Your task to perform on an android device: What's on my calendar today? Image 0: 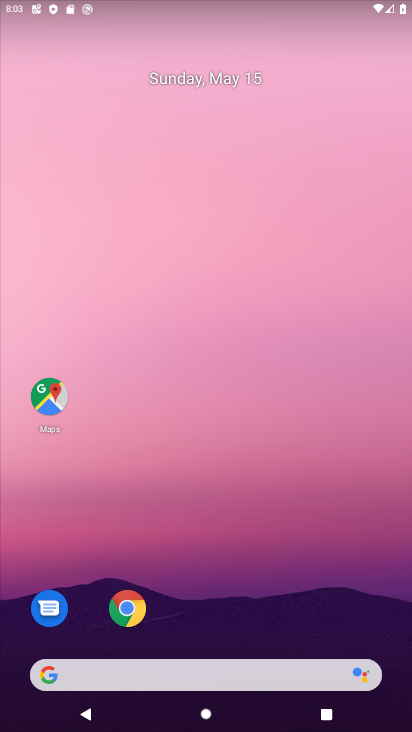
Step 0: drag from (307, 639) to (160, 188)
Your task to perform on an android device: What's on my calendar today? Image 1: 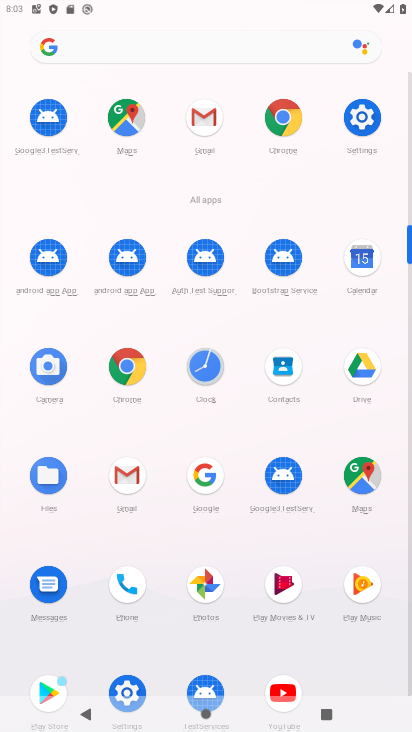
Step 1: click (376, 252)
Your task to perform on an android device: What's on my calendar today? Image 2: 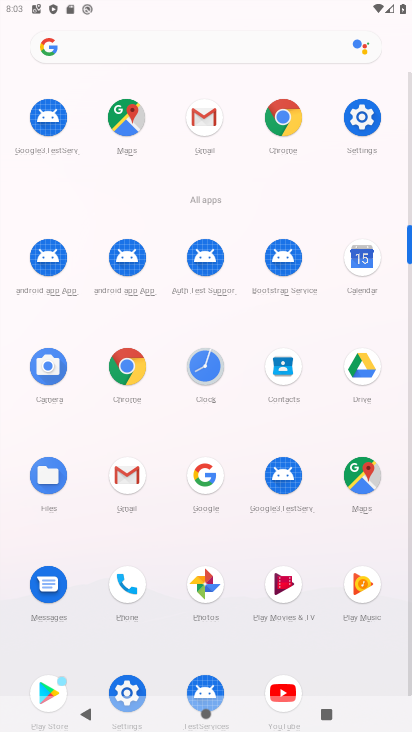
Step 2: click (377, 242)
Your task to perform on an android device: What's on my calendar today? Image 3: 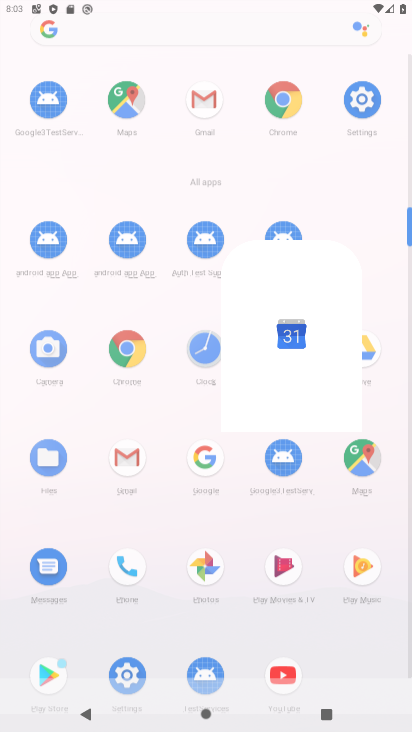
Step 3: click (362, 250)
Your task to perform on an android device: What's on my calendar today? Image 4: 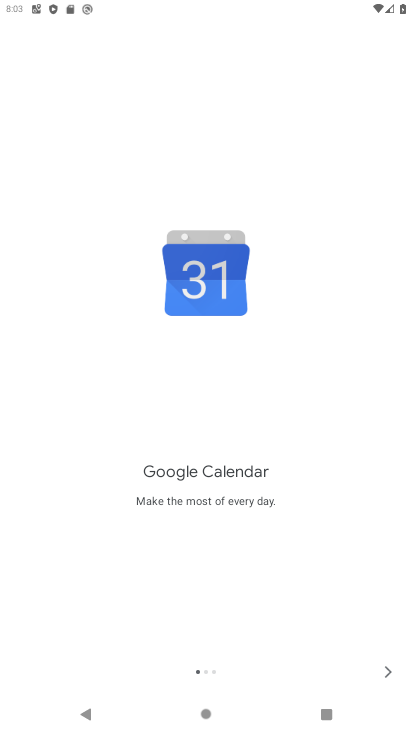
Step 4: click (375, 667)
Your task to perform on an android device: What's on my calendar today? Image 5: 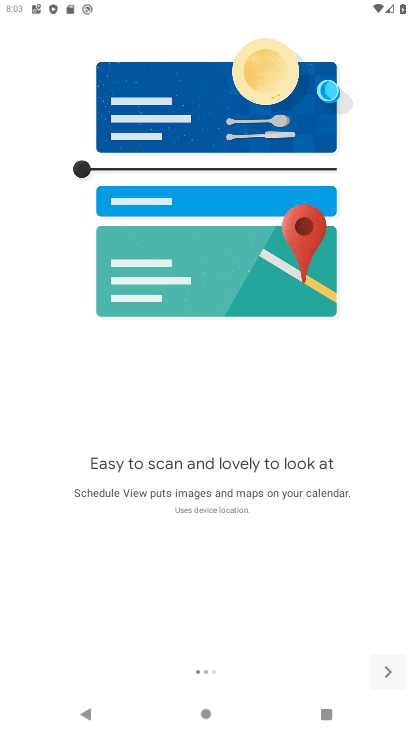
Step 5: click (382, 663)
Your task to perform on an android device: What's on my calendar today? Image 6: 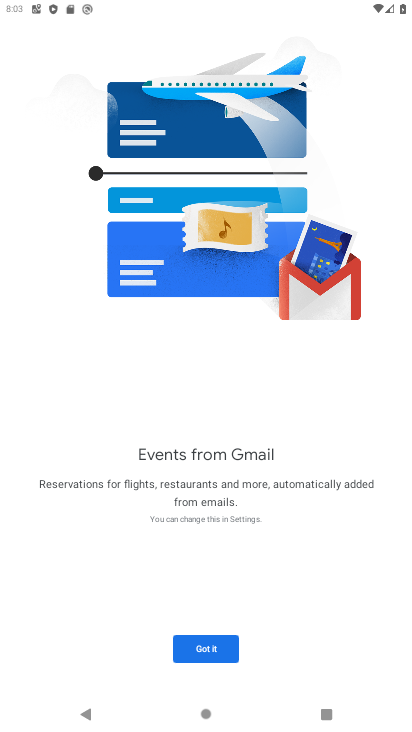
Step 6: click (211, 643)
Your task to perform on an android device: What's on my calendar today? Image 7: 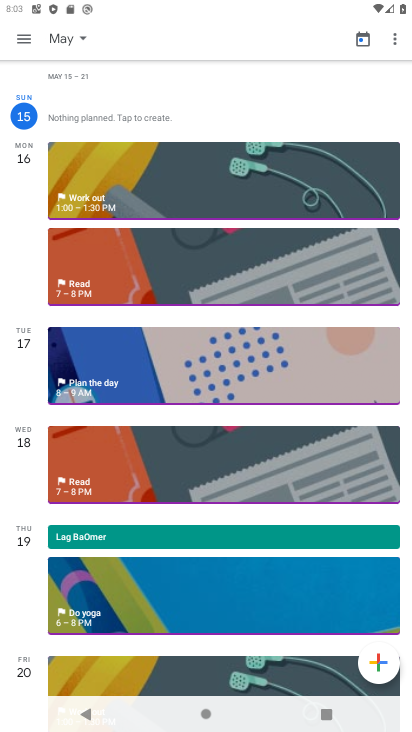
Step 7: click (78, 41)
Your task to perform on an android device: What's on my calendar today? Image 8: 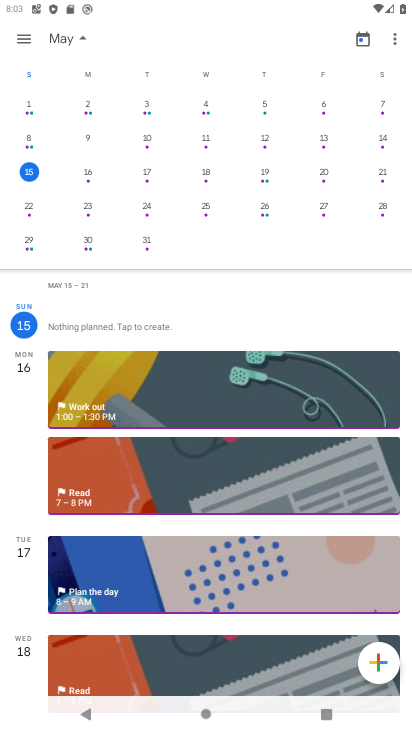
Step 8: click (88, 170)
Your task to perform on an android device: What's on my calendar today? Image 9: 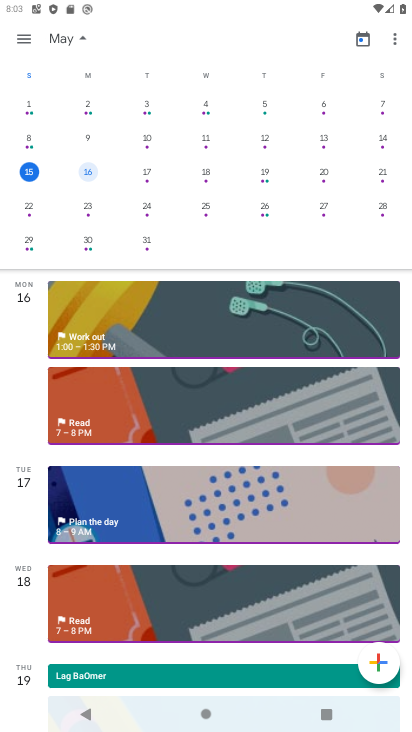
Step 9: click (69, 315)
Your task to perform on an android device: What's on my calendar today? Image 10: 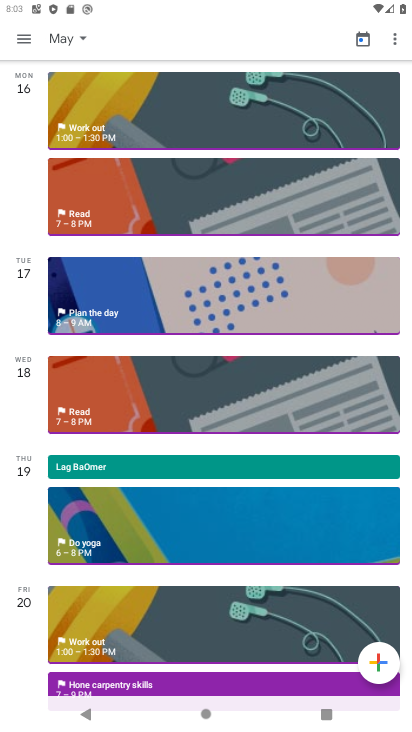
Step 10: click (94, 113)
Your task to perform on an android device: What's on my calendar today? Image 11: 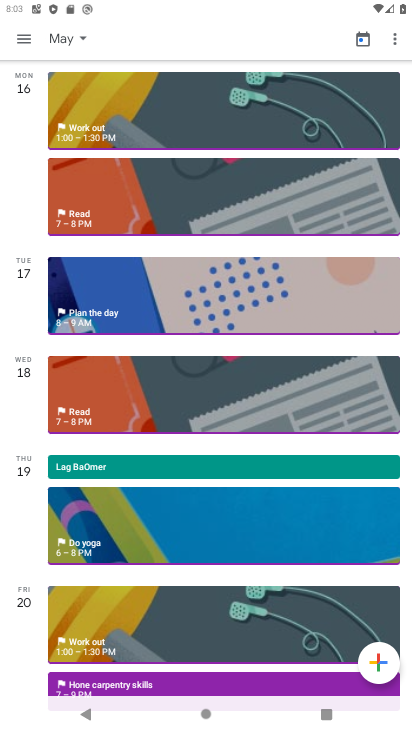
Step 11: click (157, 220)
Your task to perform on an android device: What's on my calendar today? Image 12: 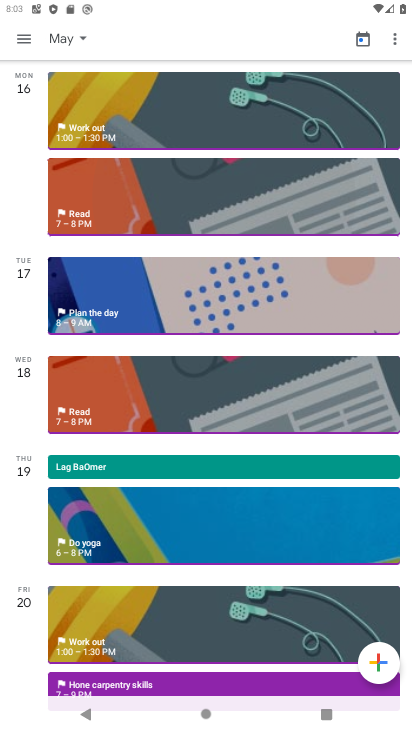
Step 12: click (157, 220)
Your task to perform on an android device: What's on my calendar today? Image 13: 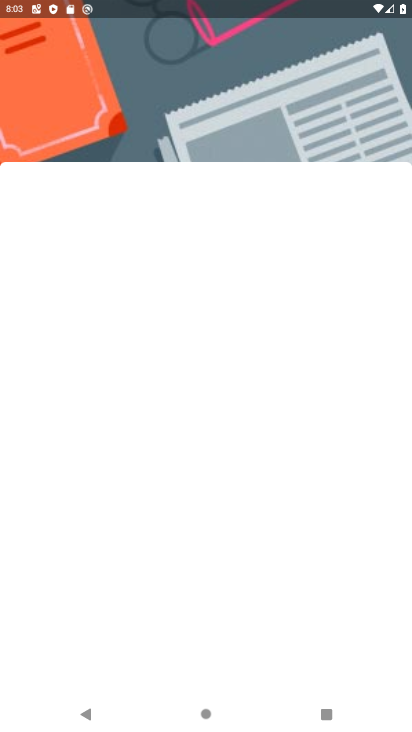
Step 13: click (151, 86)
Your task to perform on an android device: What's on my calendar today? Image 14: 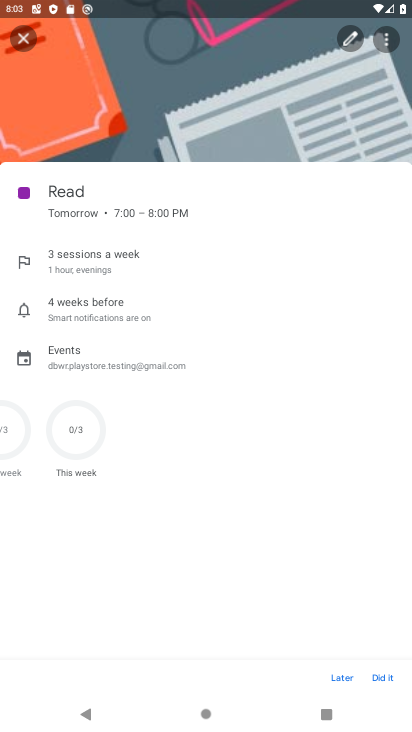
Step 14: task complete